Your task to perform on an android device: Open notification settings Image 0: 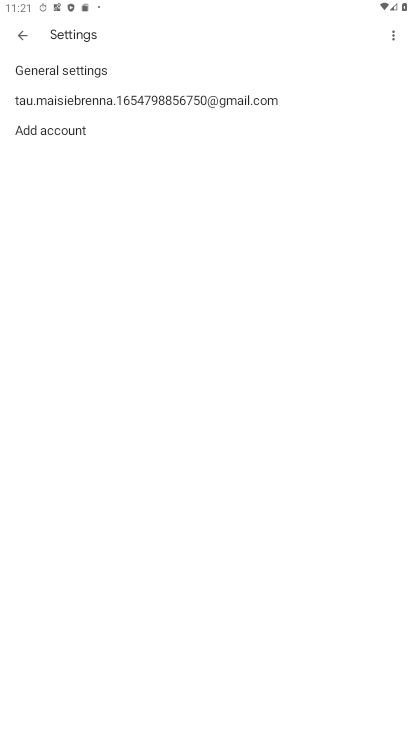
Step 0: click (105, 69)
Your task to perform on an android device: Open notification settings Image 1: 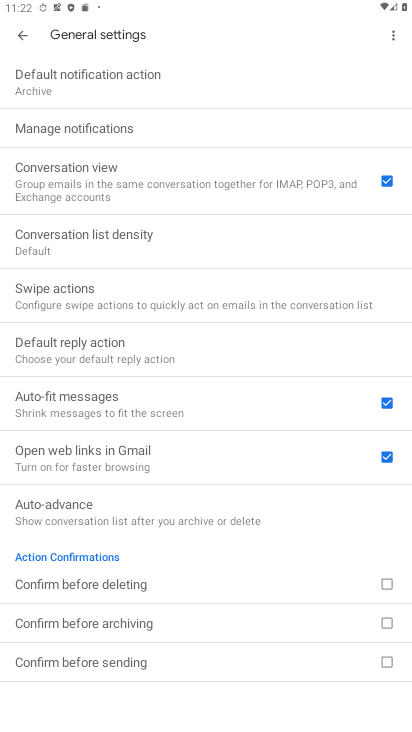
Step 1: click (140, 129)
Your task to perform on an android device: Open notification settings Image 2: 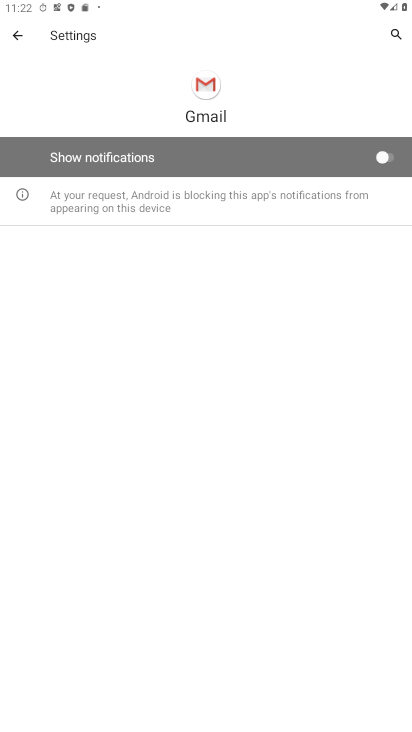
Step 2: click (377, 160)
Your task to perform on an android device: Open notification settings Image 3: 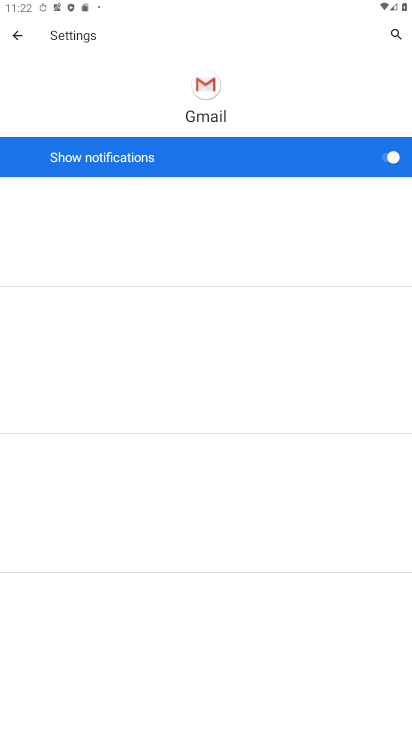
Step 3: task complete